Your task to perform on an android device: toggle javascript in the chrome app Image 0: 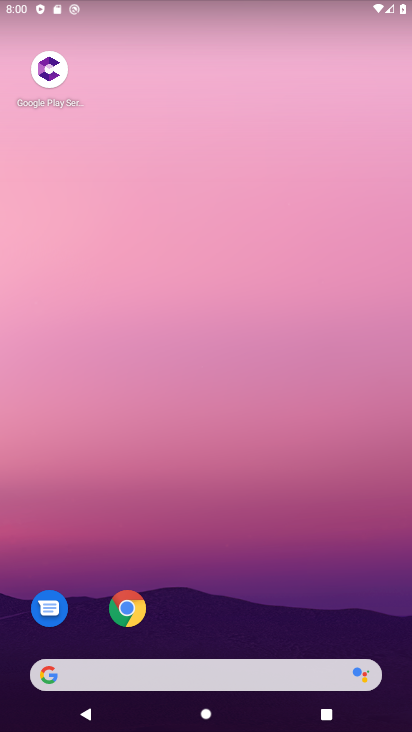
Step 0: click (131, 619)
Your task to perform on an android device: toggle javascript in the chrome app Image 1: 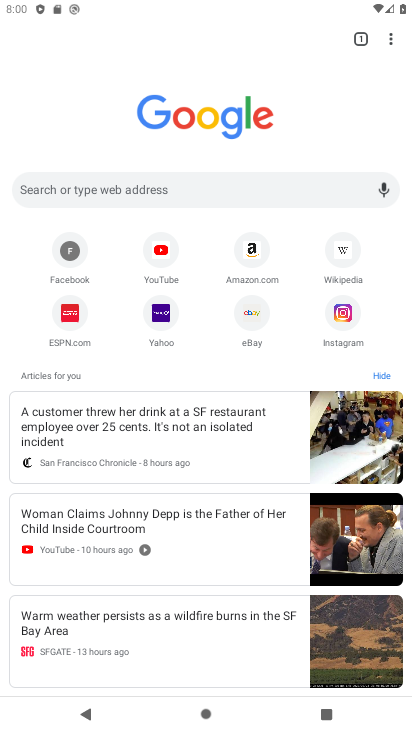
Step 1: drag from (391, 49) to (268, 330)
Your task to perform on an android device: toggle javascript in the chrome app Image 2: 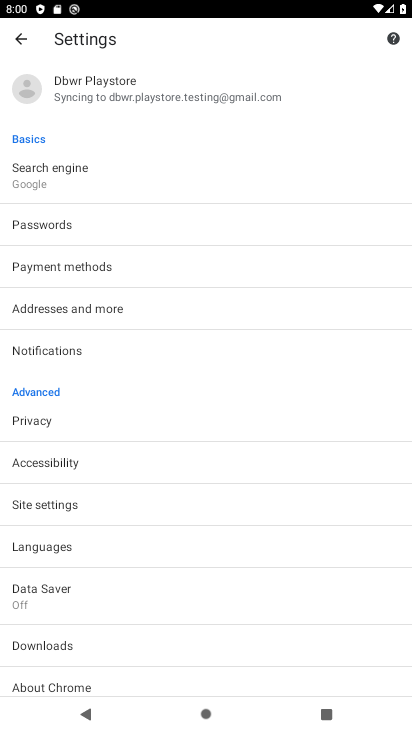
Step 2: click (53, 504)
Your task to perform on an android device: toggle javascript in the chrome app Image 3: 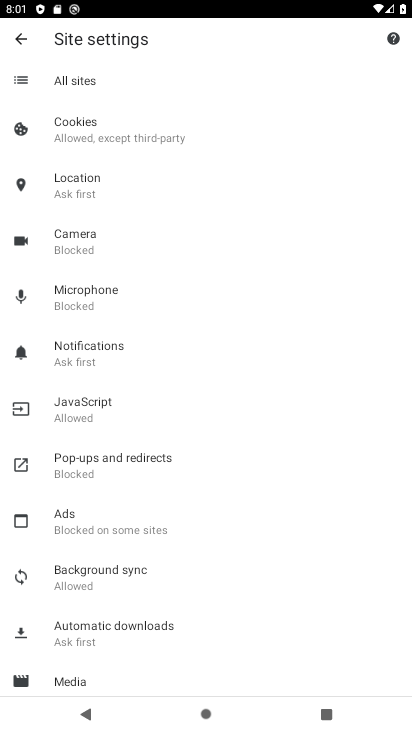
Step 3: click (88, 406)
Your task to perform on an android device: toggle javascript in the chrome app Image 4: 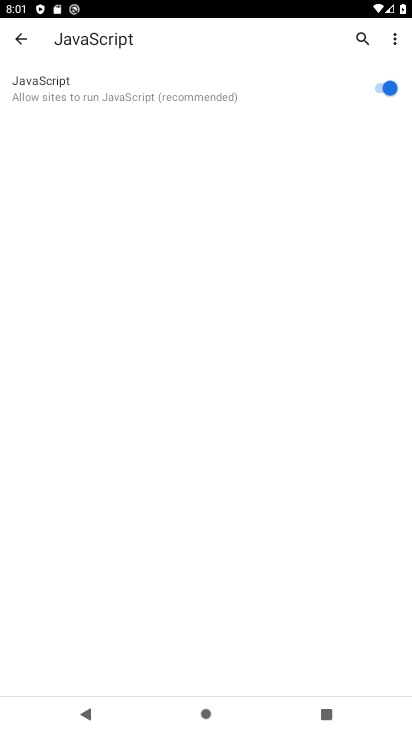
Step 4: click (389, 84)
Your task to perform on an android device: toggle javascript in the chrome app Image 5: 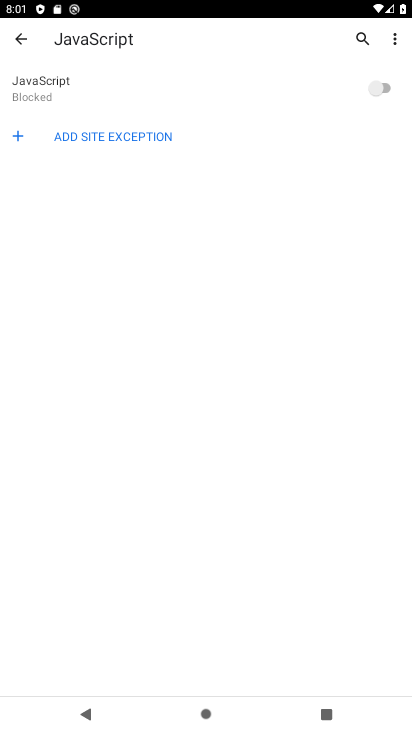
Step 5: task complete